Your task to perform on an android device: delete browsing data in the chrome app Image 0: 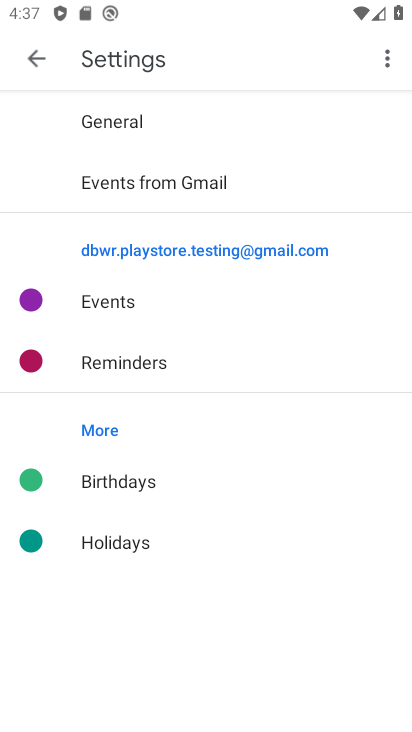
Step 0: press home button
Your task to perform on an android device: delete browsing data in the chrome app Image 1: 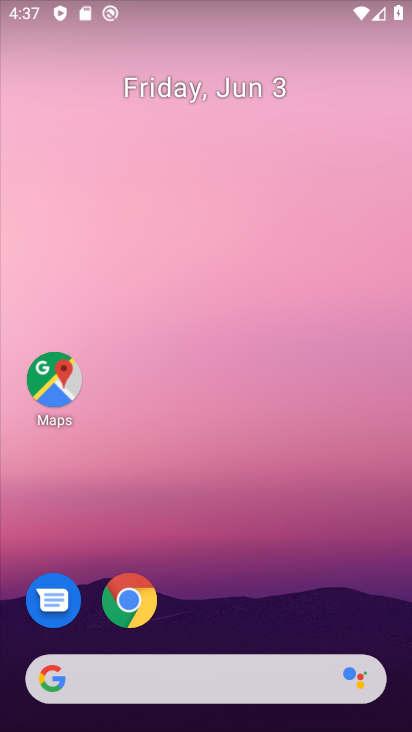
Step 1: drag from (206, 636) to (296, 57)
Your task to perform on an android device: delete browsing data in the chrome app Image 2: 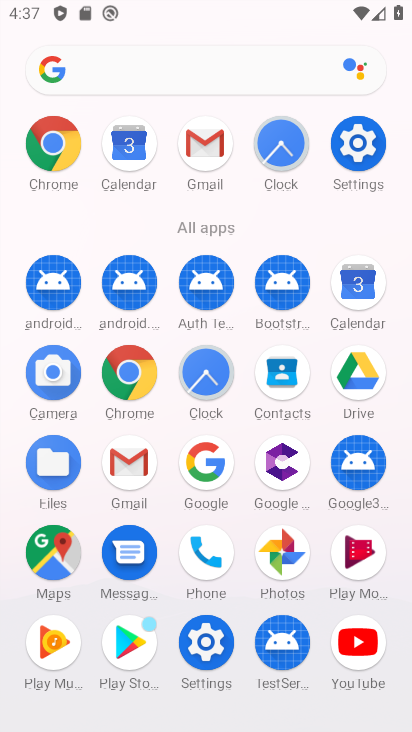
Step 2: click (139, 369)
Your task to perform on an android device: delete browsing data in the chrome app Image 3: 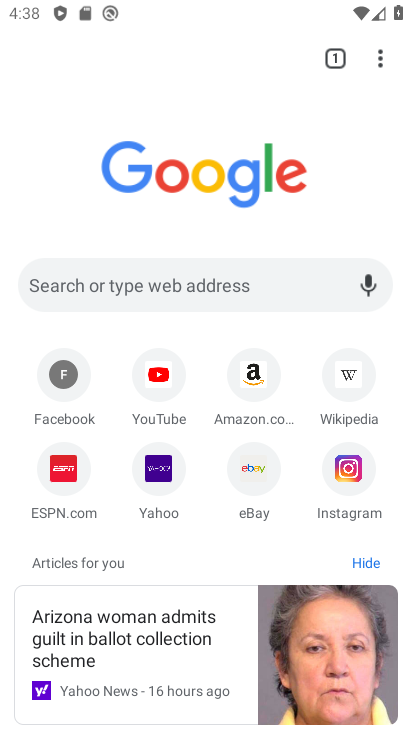
Step 3: click (387, 56)
Your task to perform on an android device: delete browsing data in the chrome app Image 4: 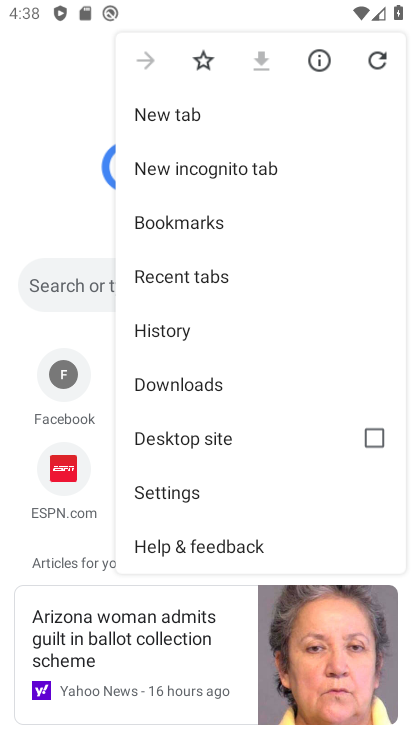
Step 4: click (184, 329)
Your task to perform on an android device: delete browsing data in the chrome app Image 5: 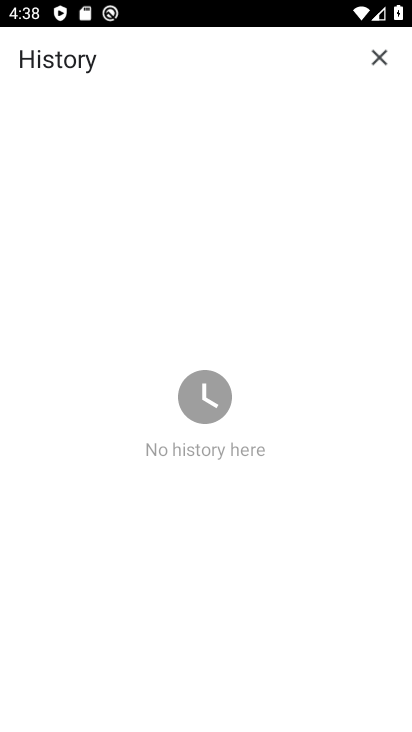
Step 5: task complete